Your task to perform on an android device: empty trash in the gmail app Image 0: 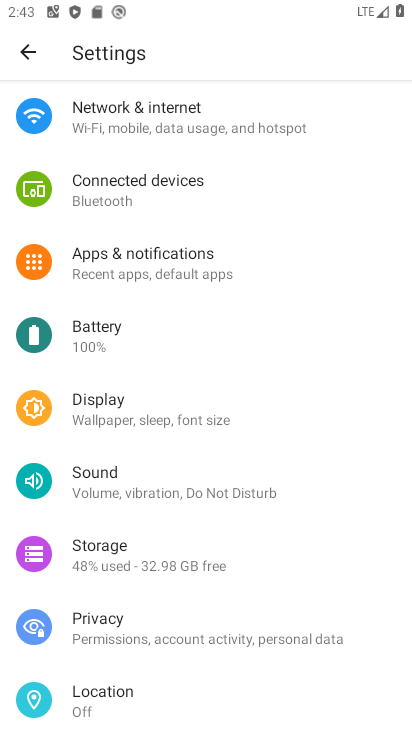
Step 0: press home button
Your task to perform on an android device: empty trash in the gmail app Image 1: 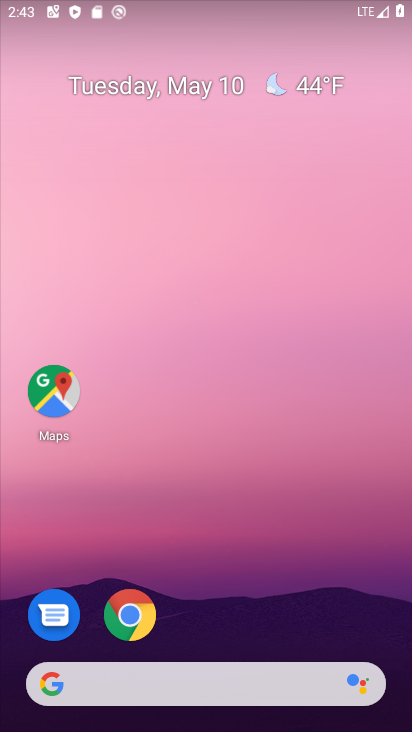
Step 1: drag from (261, 638) to (227, 64)
Your task to perform on an android device: empty trash in the gmail app Image 2: 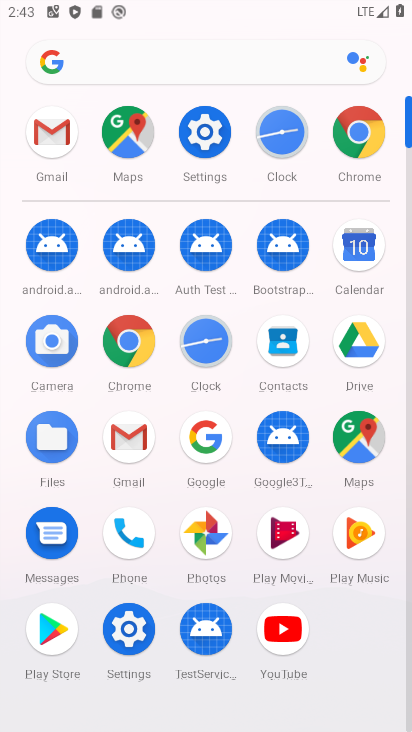
Step 2: click (40, 121)
Your task to perform on an android device: empty trash in the gmail app Image 3: 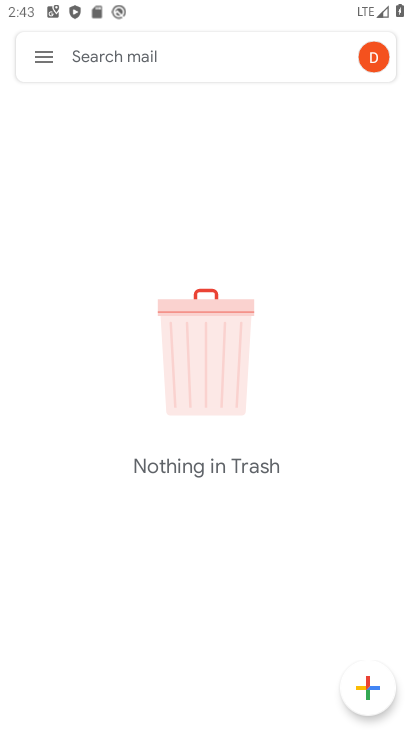
Step 3: task complete